Your task to perform on an android device: Open Google Chrome Image 0: 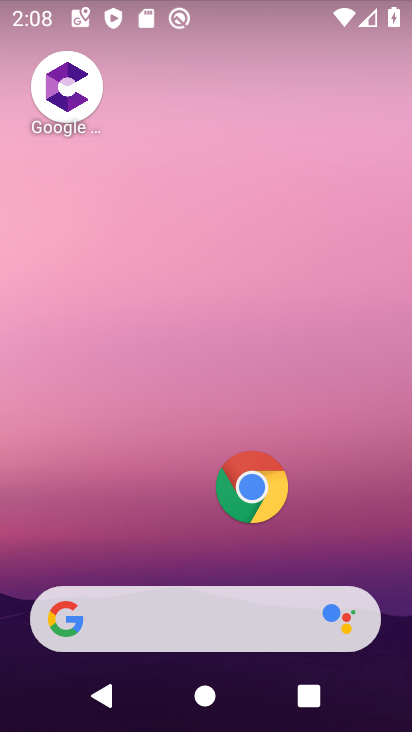
Step 0: click (276, 488)
Your task to perform on an android device: Open Google Chrome Image 1: 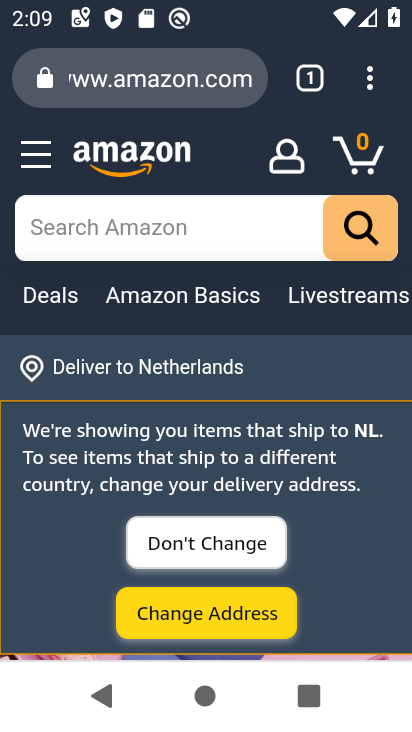
Step 1: task complete